Your task to perform on an android device: Play the last video I watched on Youtube Image 0: 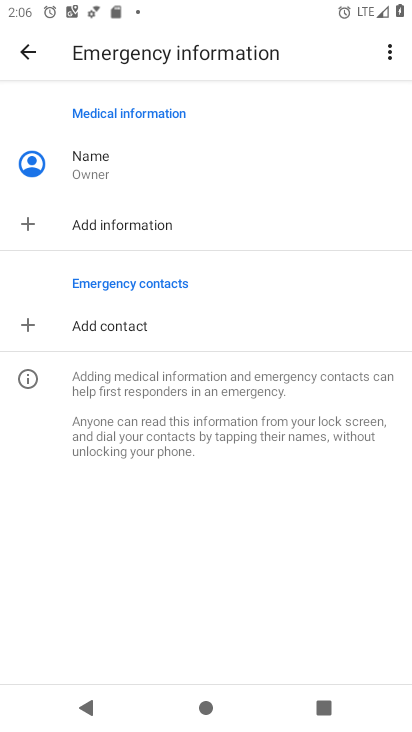
Step 0: drag from (259, 606) to (293, 358)
Your task to perform on an android device: Play the last video I watched on Youtube Image 1: 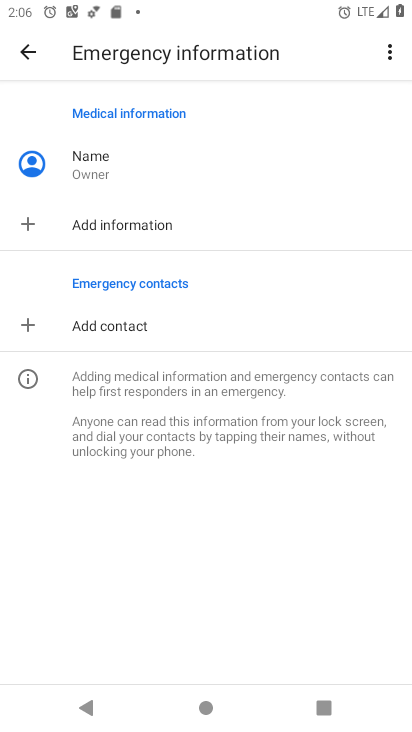
Step 1: press home button
Your task to perform on an android device: Play the last video I watched on Youtube Image 2: 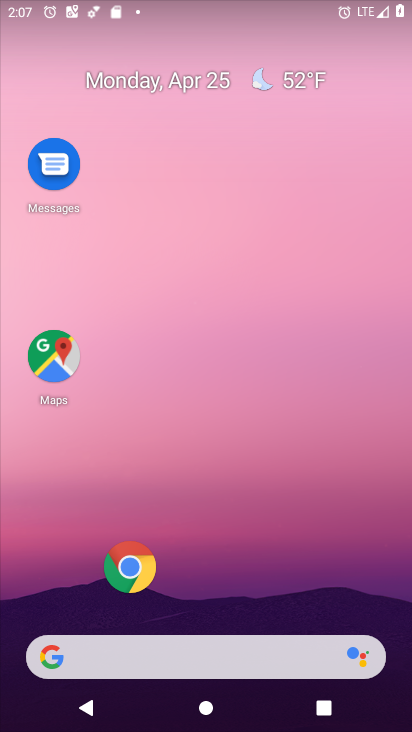
Step 2: drag from (175, 519) to (168, 249)
Your task to perform on an android device: Play the last video I watched on Youtube Image 3: 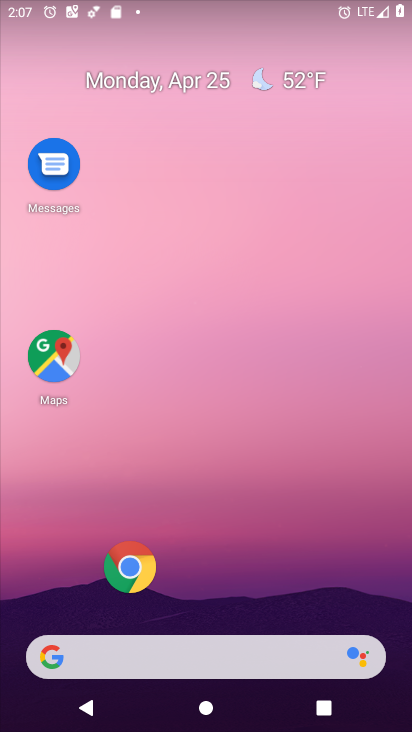
Step 3: drag from (319, 548) to (349, 134)
Your task to perform on an android device: Play the last video I watched on Youtube Image 4: 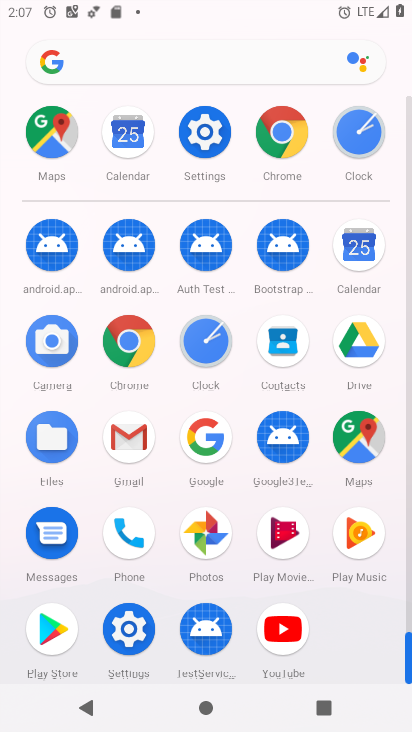
Step 4: click (285, 635)
Your task to perform on an android device: Play the last video I watched on Youtube Image 5: 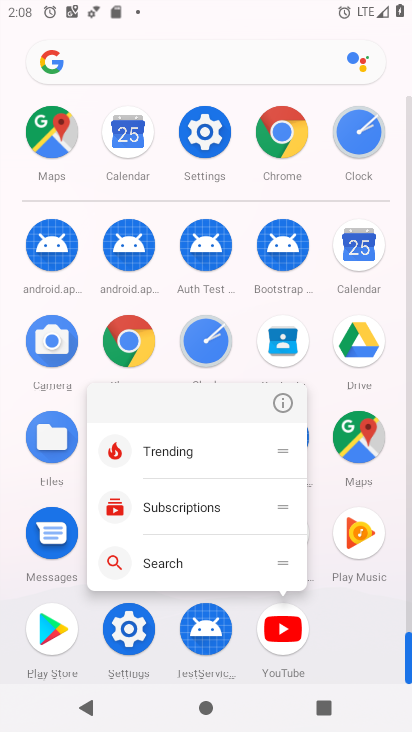
Step 5: click (280, 643)
Your task to perform on an android device: Play the last video I watched on Youtube Image 6: 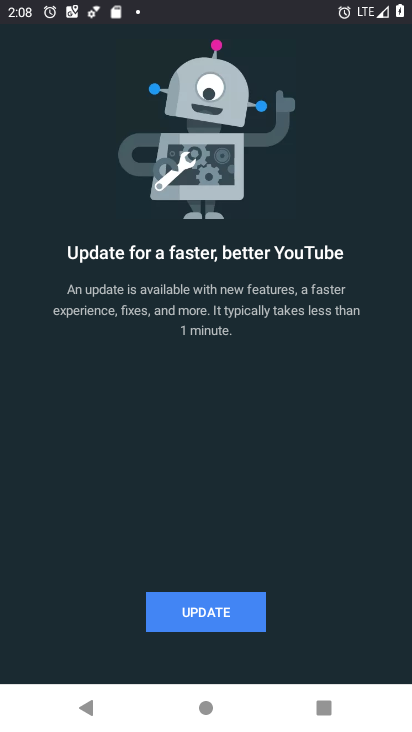
Step 6: task complete